Your task to perform on an android device: Go to sound settings Image 0: 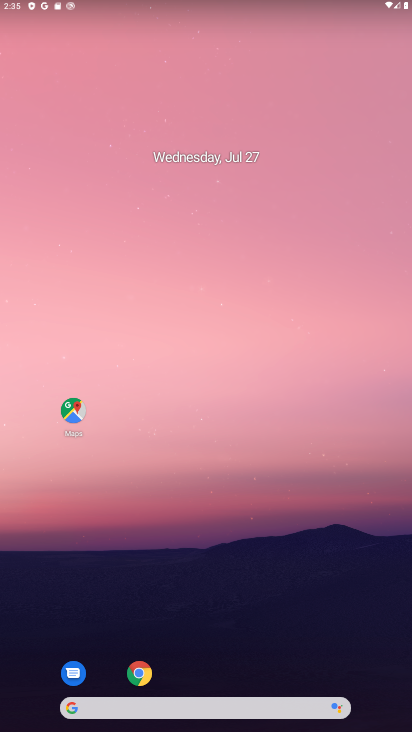
Step 0: drag from (134, 720) to (316, 161)
Your task to perform on an android device: Go to sound settings Image 1: 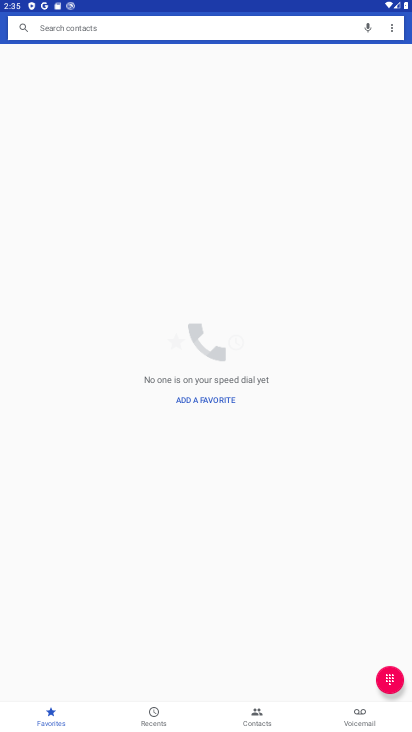
Step 1: press home button
Your task to perform on an android device: Go to sound settings Image 2: 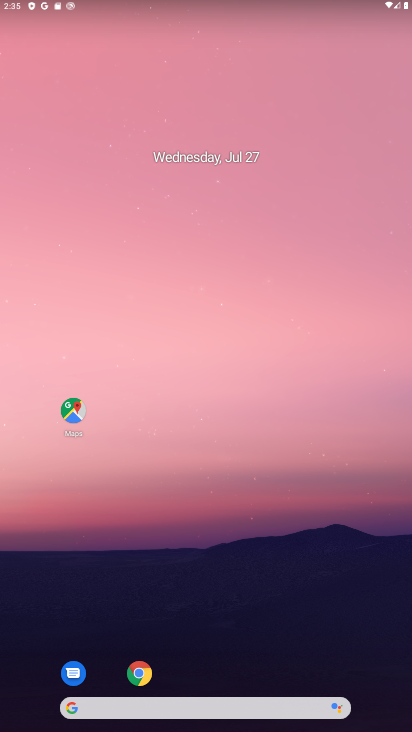
Step 2: drag from (189, 730) to (296, 184)
Your task to perform on an android device: Go to sound settings Image 3: 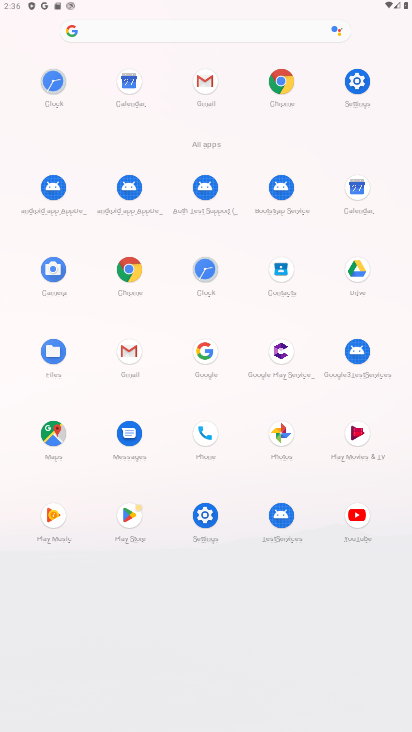
Step 3: click (354, 82)
Your task to perform on an android device: Go to sound settings Image 4: 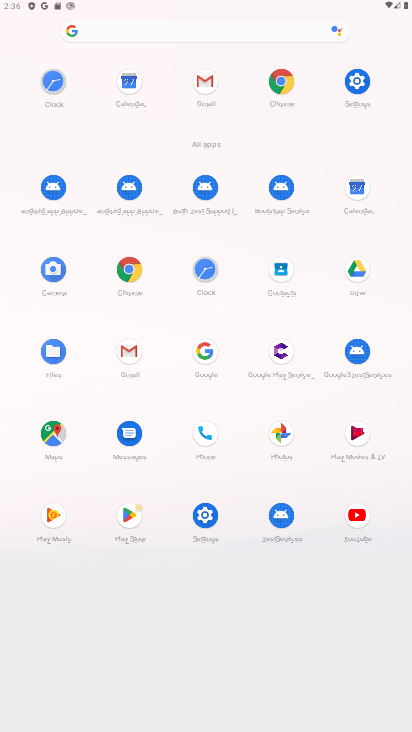
Step 4: click (354, 82)
Your task to perform on an android device: Go to sound settings Image 5: 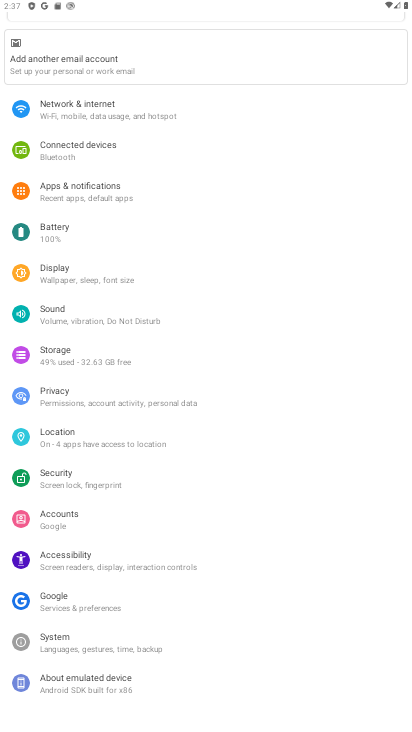
Step 5: click (101, 312)
Your task to perform on an android device: Go to sound settings Image 6: 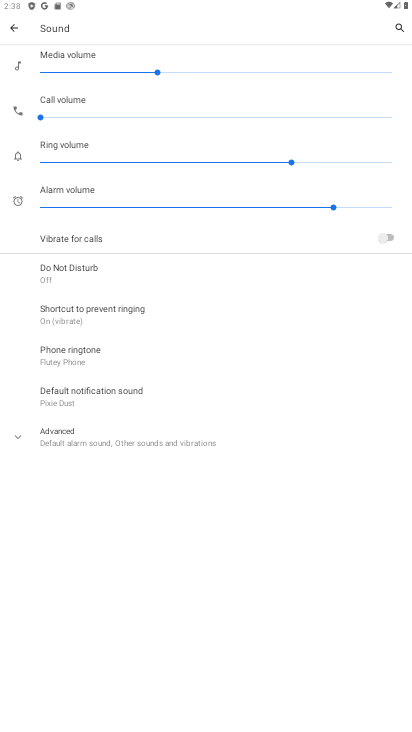
Step 6: task complete